Your task to perform on an android device: refresh tabs in the chrome app Image 0: 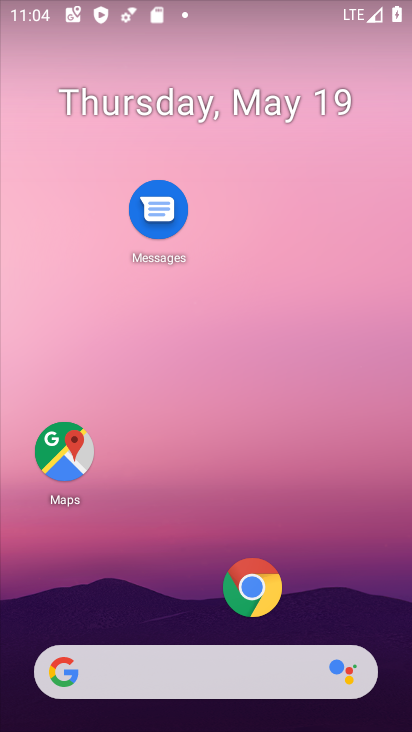
Step 0: click (255, 579)
Your task to perform on an android device: refresh tabs in the chrome app Image 1: 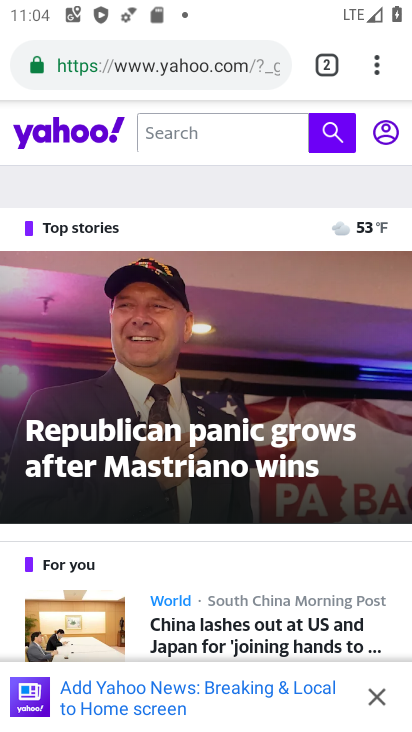
Step 1: click (378, 64)
Your task to perform on an android device: refresh tabs in the chrome app Image 2: 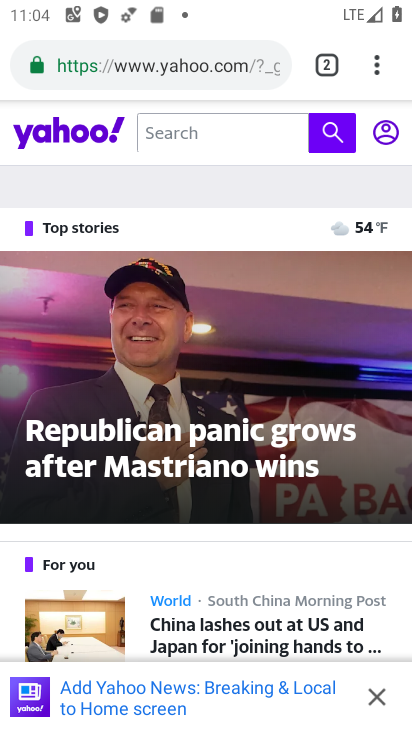
Step 2: click (384, 64)
Your task to perform on an android device: refresh tabs in the chrome app Image 3: 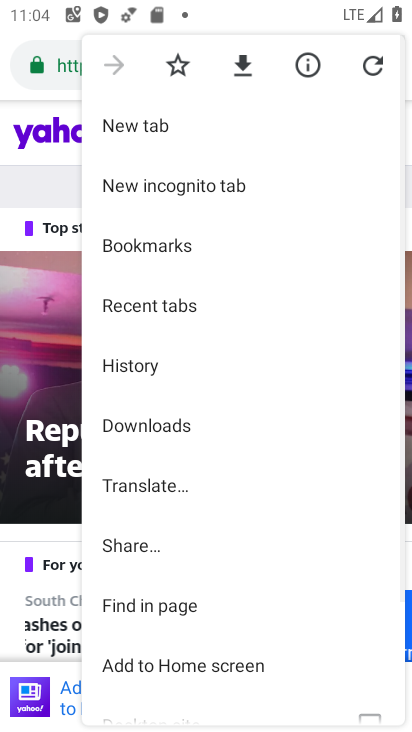
Step 3: click (375, 74)
Your task to perform on an android device: refresh tabs in the chrome app Image 4: 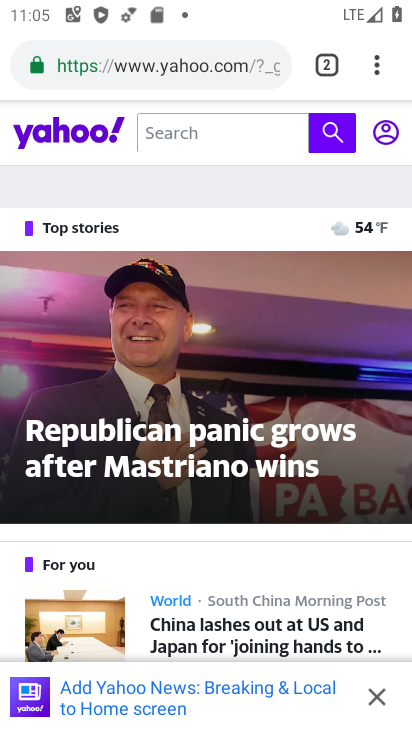
Step 4: task complete